Your task to perform on an android device: Search for "razer blade" on walmart.com, select the first entry, and add it to the cart. Image 0: 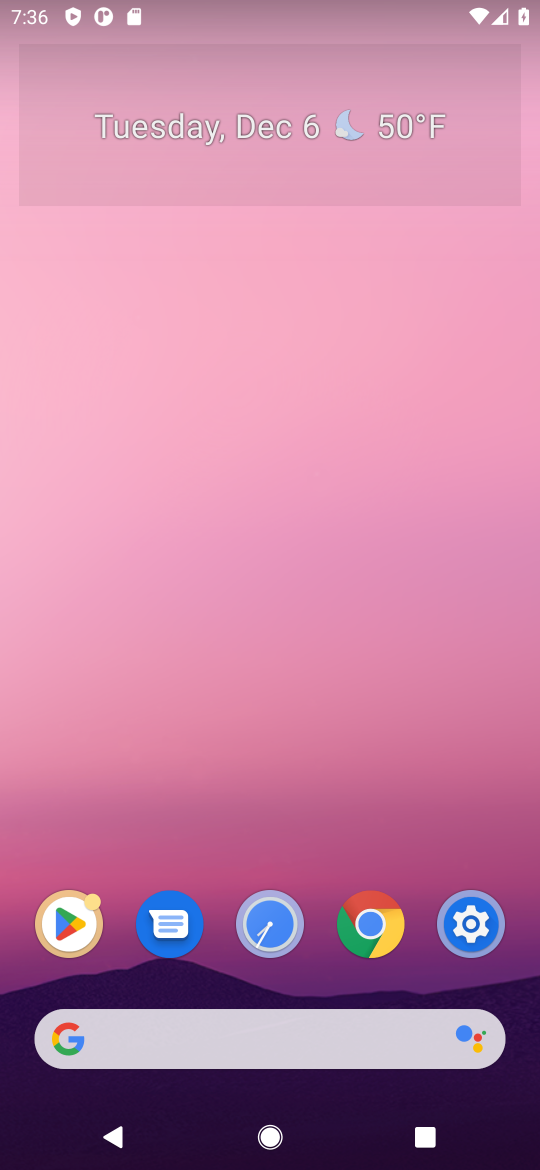
Step 0: press home button
Your task to perform on an android device: Search for "razer blade" on walmart.com, select the first entry, and add it to the cart. Image 1: 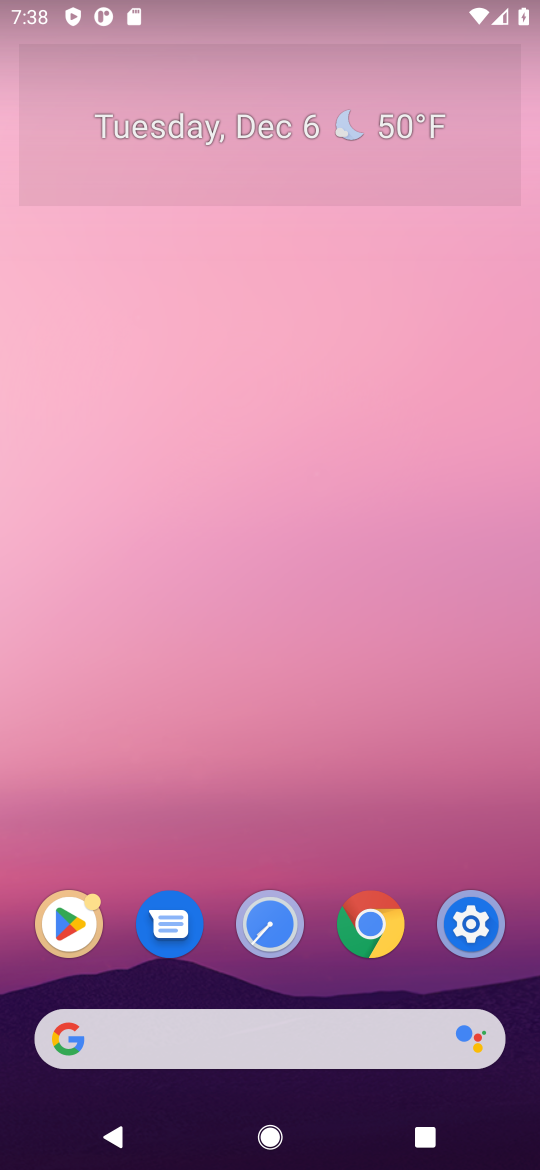
Step 1: click (268, 1038)
Your task to perform on an android device: Search for "razer blade" on walmart.com, select the first entry, and add it to the cart. Image 2: 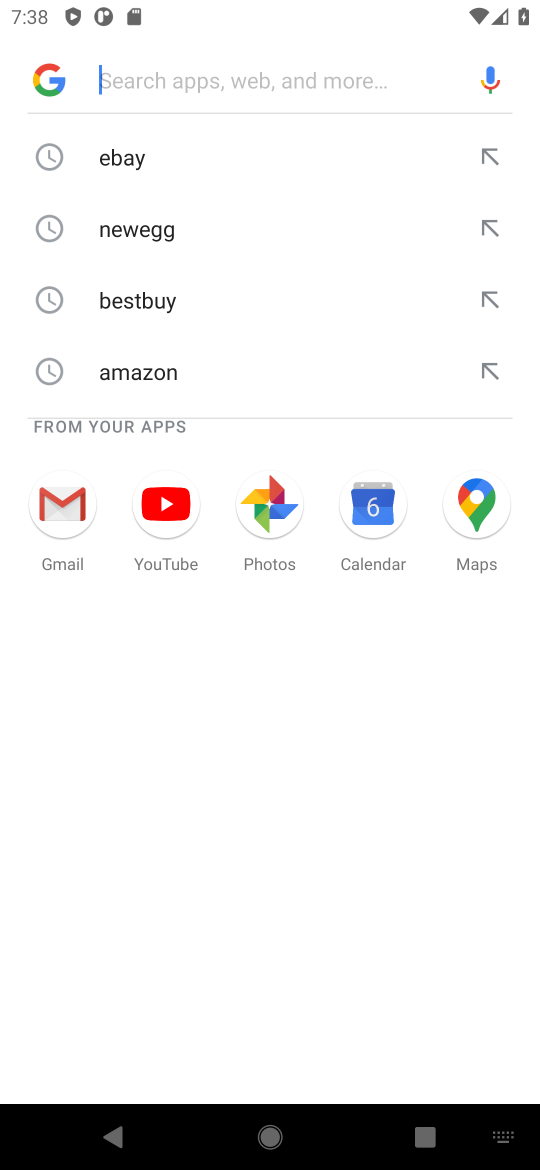
Step 2: type "walmart"
Your task to perform on an android device: Search for "razer blade" on walmart.com, select the first entry, and add it to the cart. Image 3: 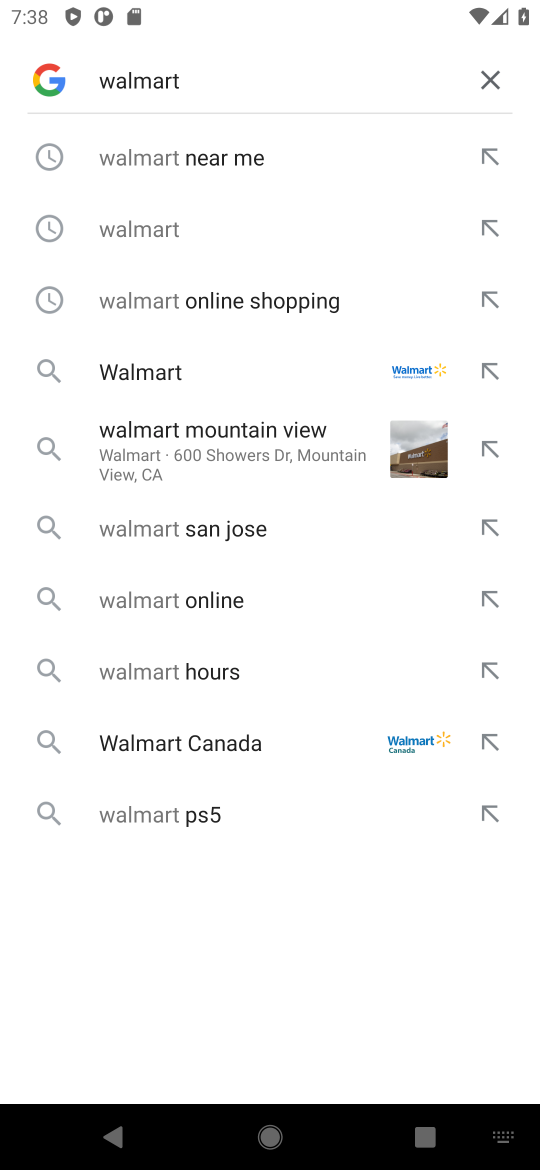
Step 3: click (153, 231)
Your task to perform on an android device: Search for "razer blade" on walmart.com, select the first entry, and add it to the cart. Image 4: 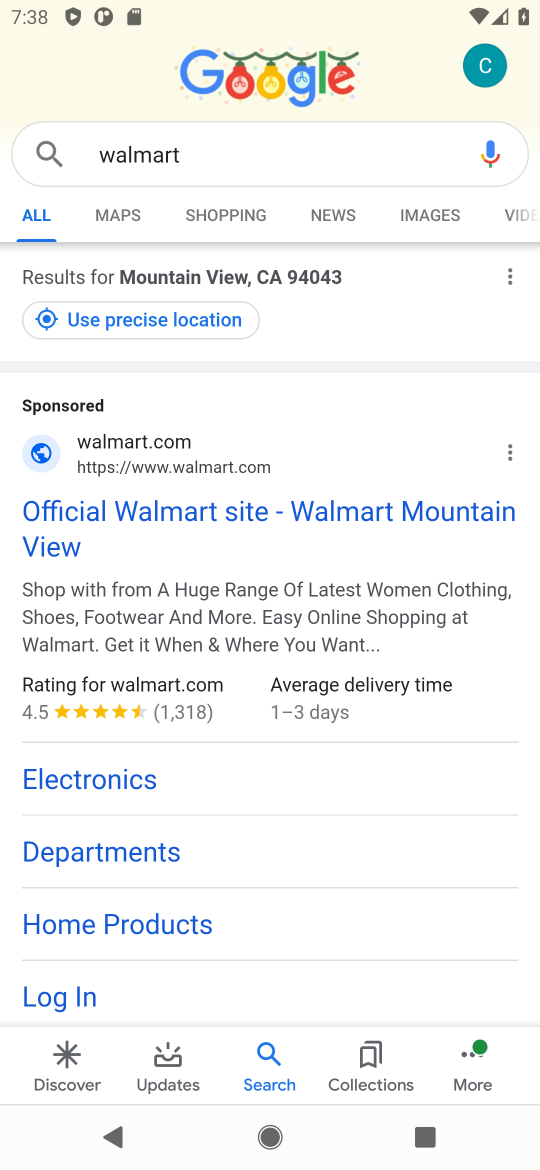
Step 4: click (115, 494)
Your task to perform on an android device: Search for "razer blade" on walmart.com, select the first entry, and add it to the cart. Image 5: 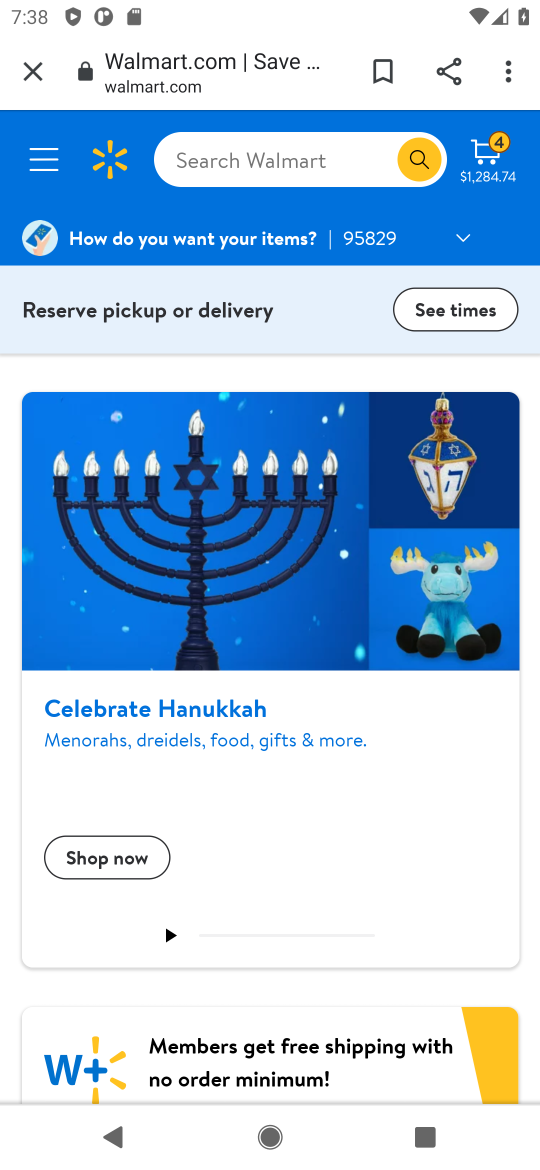
Step 5: click (208, 161)
Your task to perform on an android device: Search for "razer blade" on walmart.com, select the first entry, and add it to the cart. Image 6: 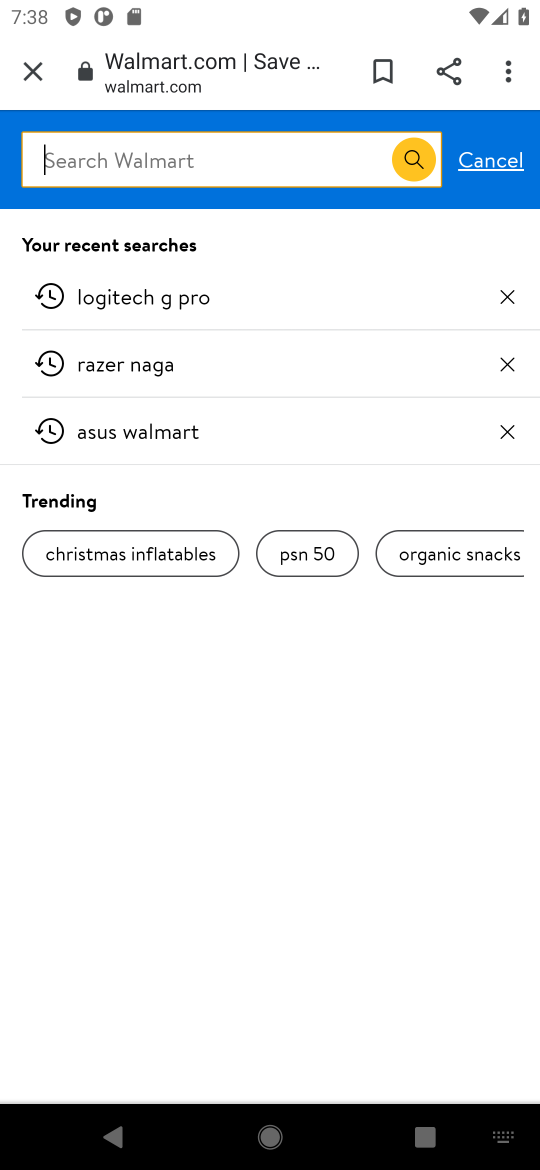
Step 6: type "razer blade"
Your task to perform on an android device: Search for "razer blade" on walmart.com, select the first entry, and add it to the cart. Image 7: 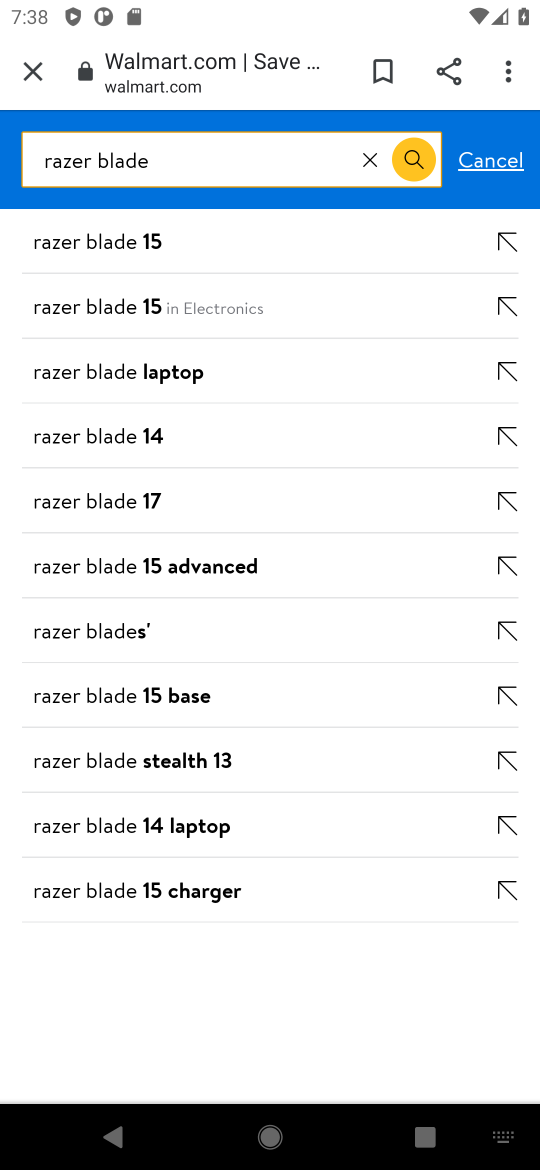
Step 7: click (108, 254)
Your task to perform on an android device: Search for "razer blade" on walmart.com, select the first entry, and add it to the cart. Image 8: 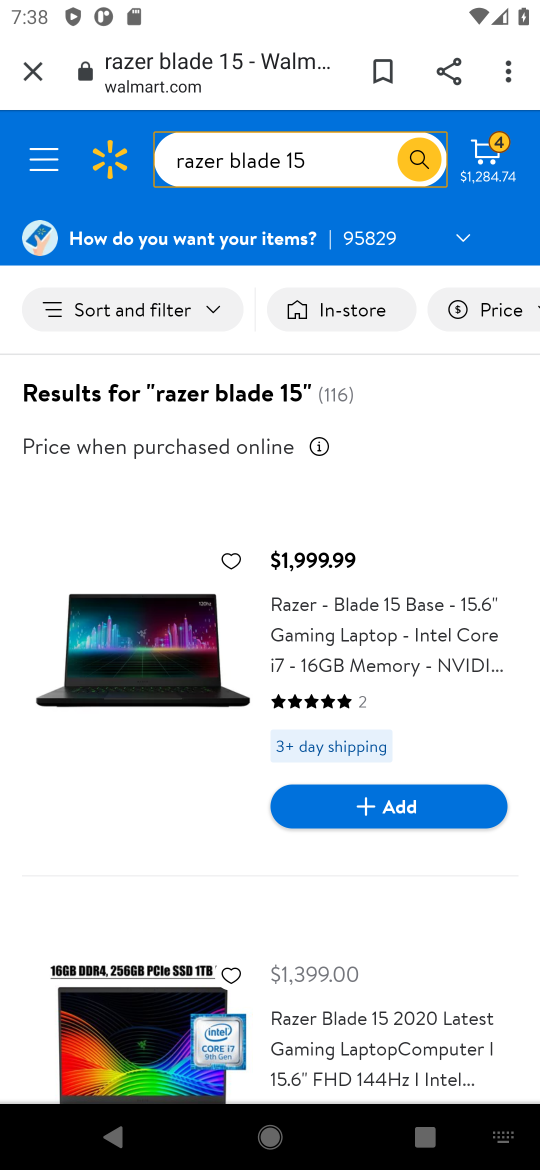
Step 8: click (363, 818)
Your task to perform on an android device: Search for "razer blade" on walmart.com, select the first entry, and add it to the cart. Image 9: 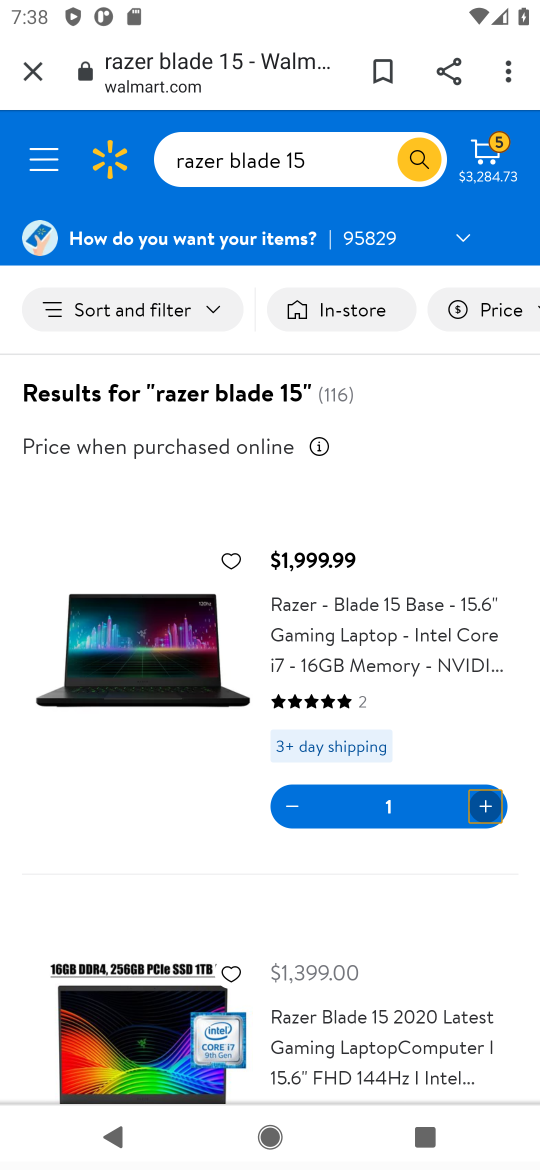
Step 9: task complete